Your task to perform on an android device: turn on data saver in the chrome app Image 0: 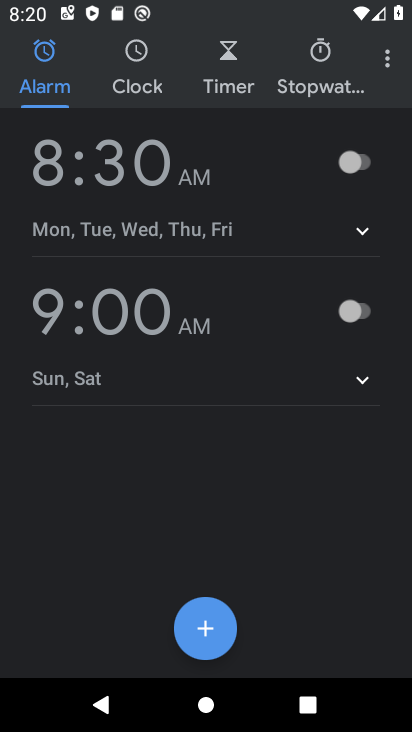
Step 0: press home button
Your task to perform on an android device: turn on data saver in the chrome app Image 1: 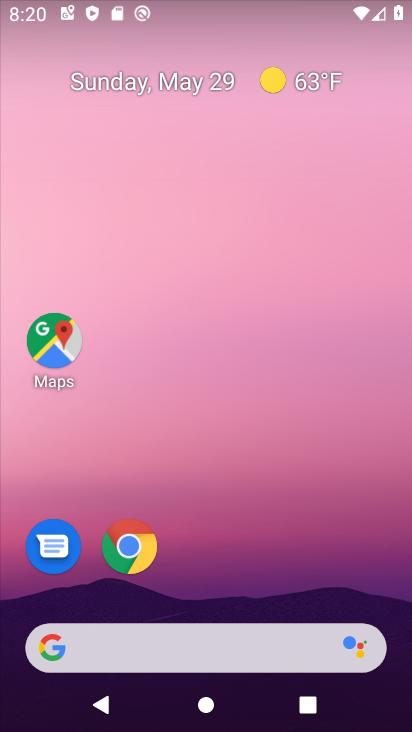
Step 1: click (121, 553)
Your task to perform on an android device: turn on data saver in the chrome app Image 2: 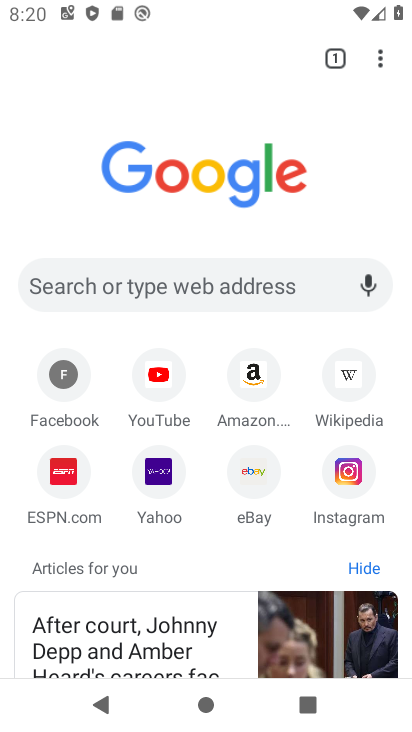
Step 2: drag from (378, 65) to (216, 501)
Your task to perform on an android device: turn on data saver in the chrome app Image 3: 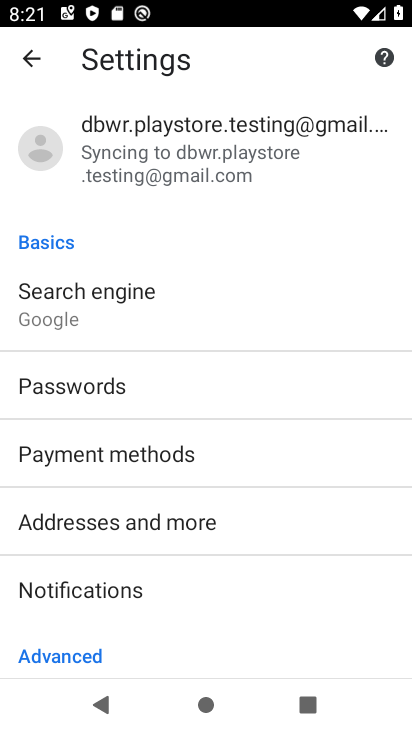
Step 3: drag from (174, 638) to (367, 95)
Your task to perform on an android device: turn on data saver in the chrome app Image 4: 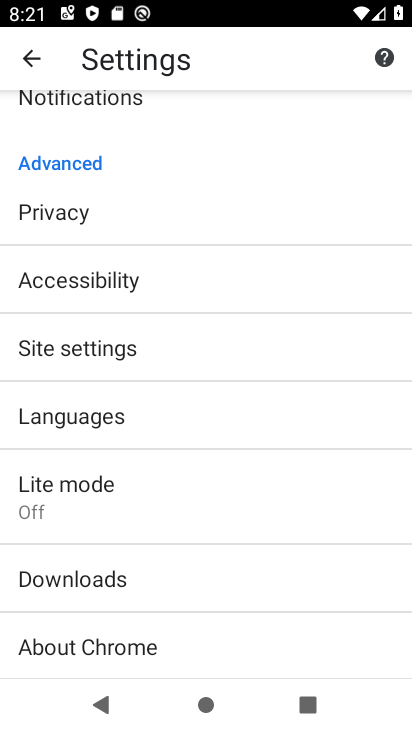
Step 4: click (116, 497)
Your task to perform on an android device: turn on data saver in the chrome app Image 5: 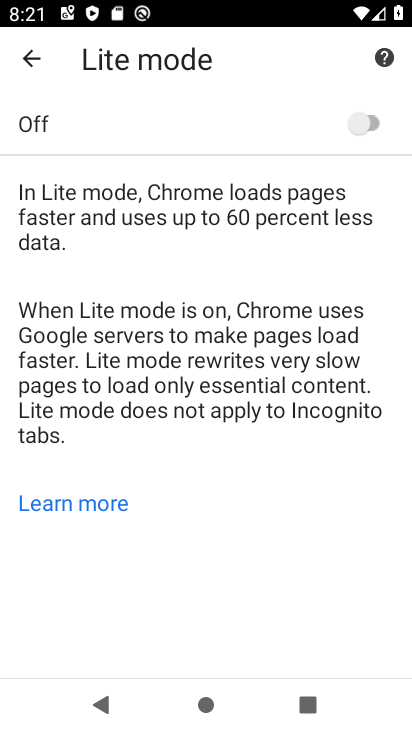
Step 5: click (375, 120)
Your task to perform on an android device: turn on data saver in the chrome app Image 6: 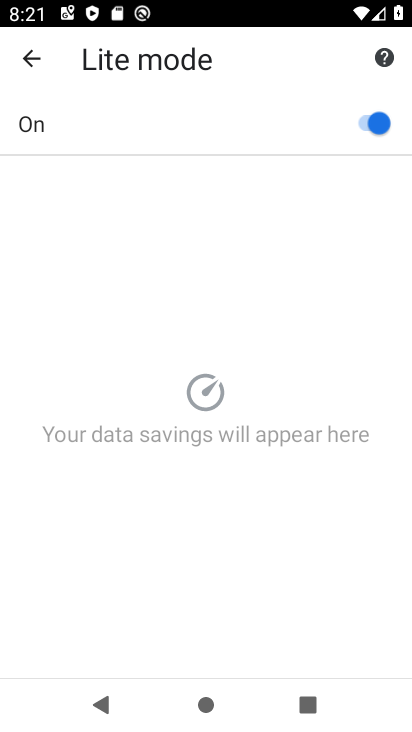
Step 6: task complete